Your task to perform on an android device: Open my contact list Image 0: 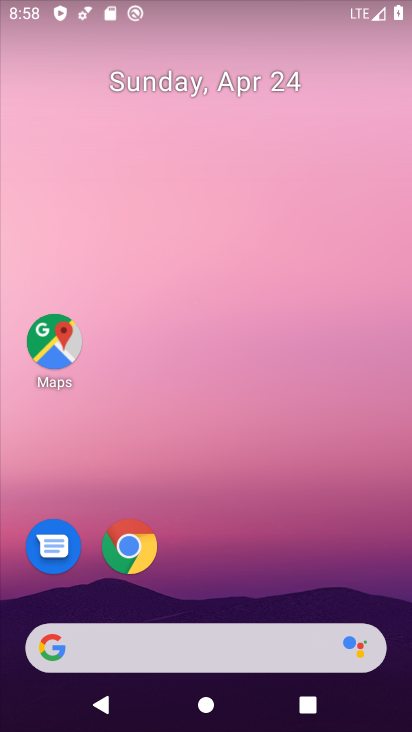
Step 0: drag from (295, 584) to (277, 58)
Your task to perform on an android device: Open my contact list Image 1: 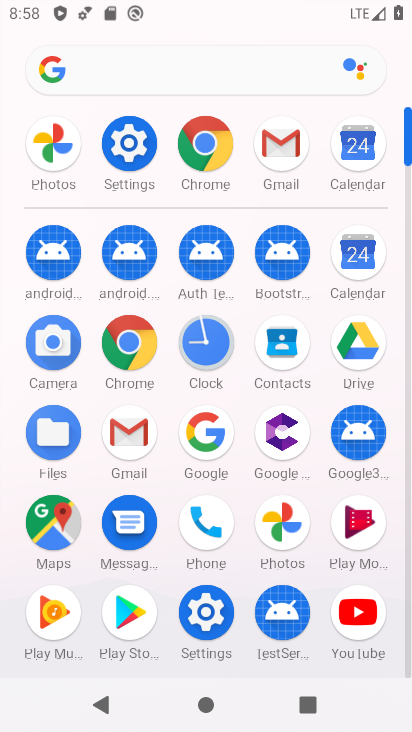
Step 1: click (279, 376)
Your task to perform on an android device: Open my contact list Image 2: 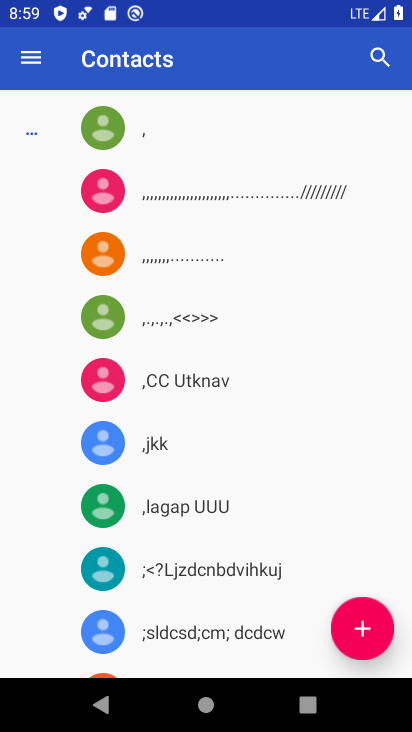
Step 2: task complete